Your task to perform on an android device: Go to battery settings Image 0: 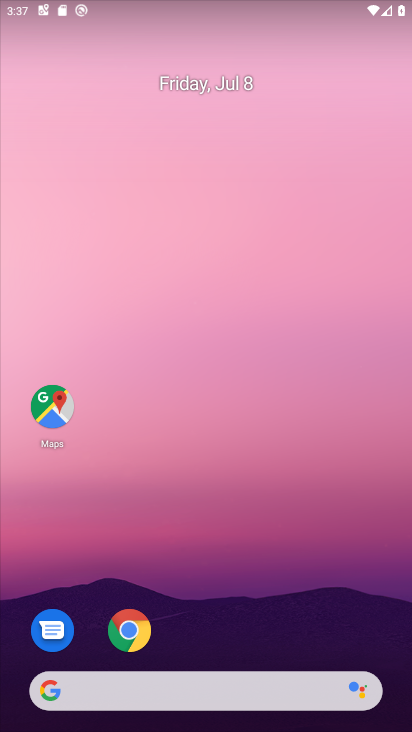
Step 0: drag from (309, 594) to (269, 91)
Your task to perform on an android device: Go to battery settings Image 1: 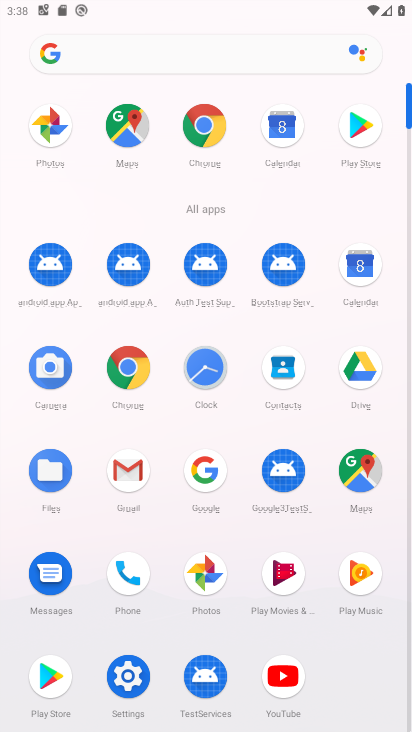
Step 1: click (130, 668)
Your task to perform on an android device: Go to battery settings Image 2: 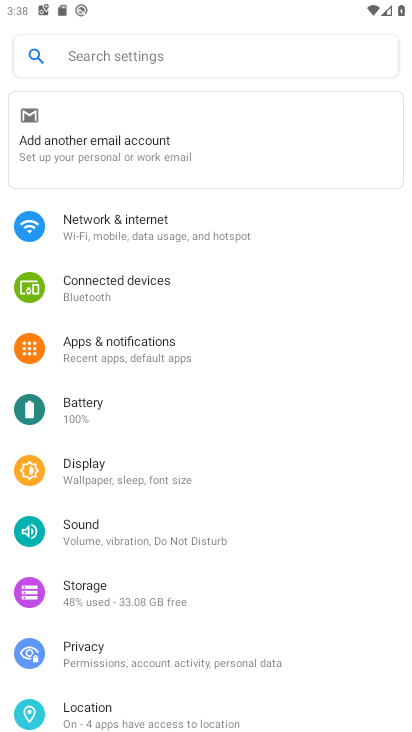
Step 2: click (74, 413)
Your task to perform on an android device: Go to battery settings Image 3: 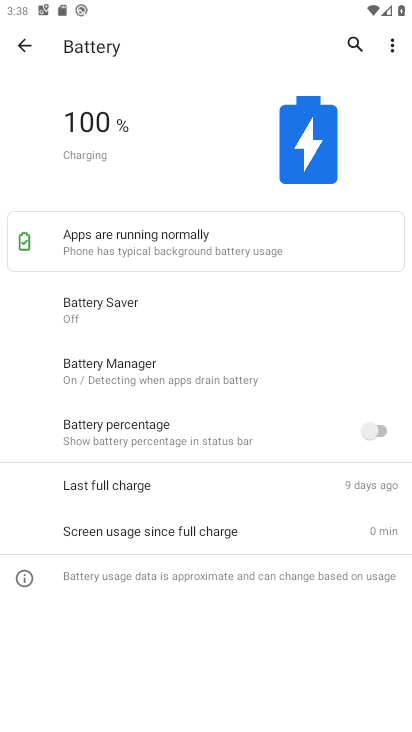
Step 3: task complete